Your task to perform on an android device: Open Maps and search for coffee Image 0: 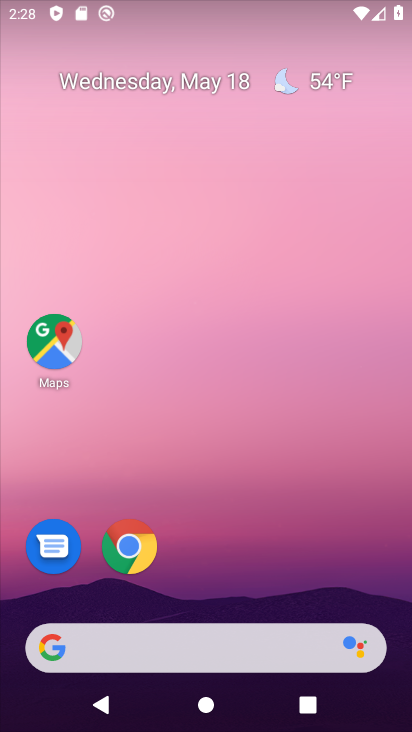
Step 0: press home button
Your task to perform on an android device: Open Maps and search for coffee Image 1: 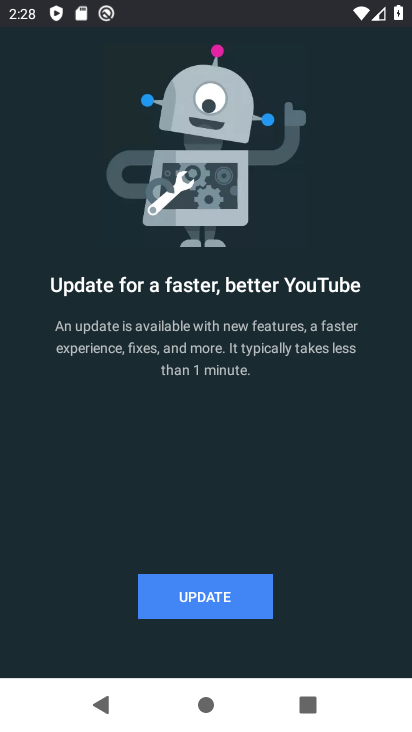
Step 1: press home button
Your task to perform on an android device: Open Maps and search for coffee Image 2: 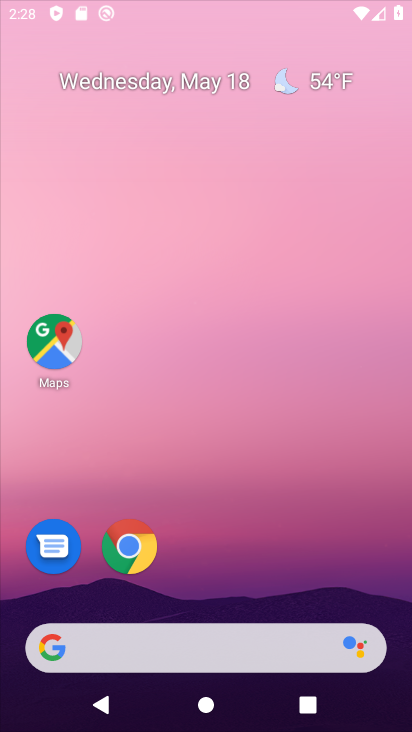
Step 2: press home button
Your task to perform on an android device: Open Maps and search for coffee Image 3: 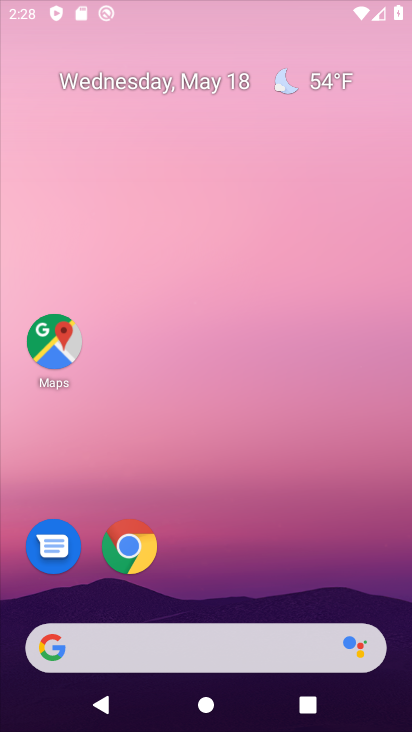
Step 3: press home button
Your task to perform on an android device: Open Maps and search for coffee Image 4: 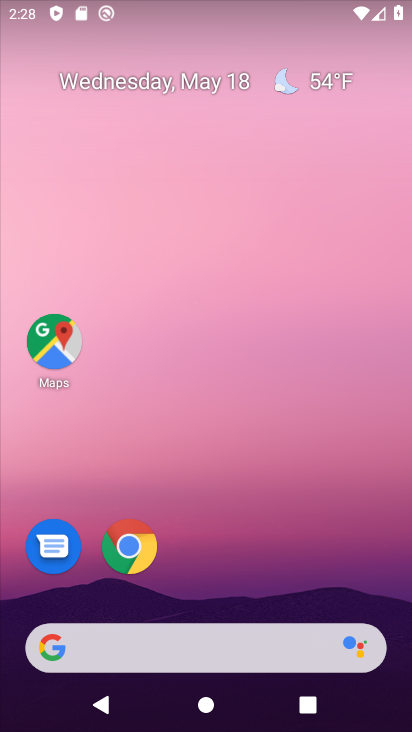
Step 4: click (49, 339)
Your task to perform on an android device: Open Maps and search for coffee Image 5: 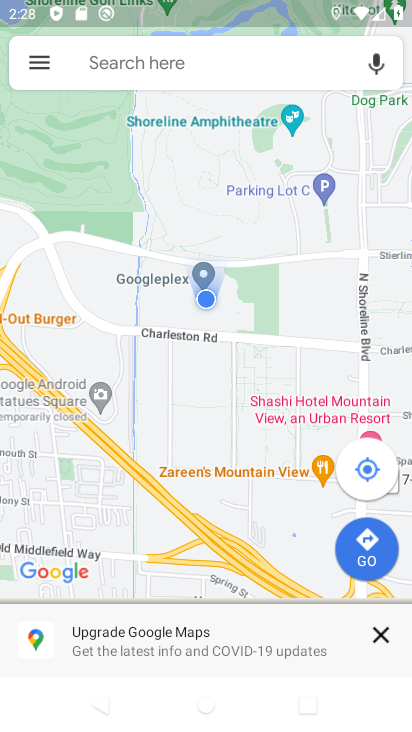
Step 5: click (237, 57)
Your task to perform on an android device: Open Maps and search for coffee Image 6: 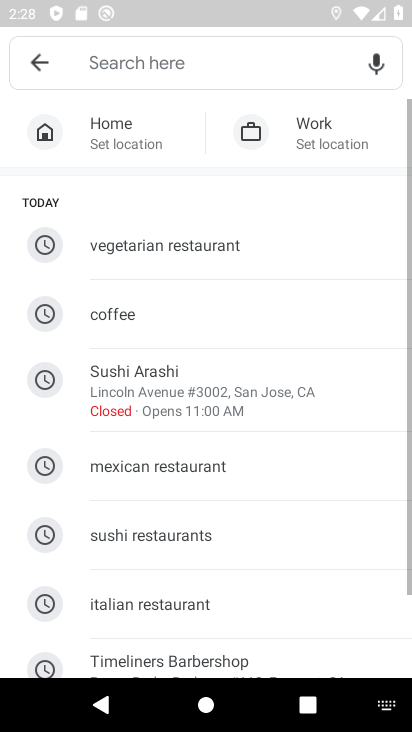
Step 6: type " coffee"
Your task to perform on an android device: Open Maps and search for coffee Image 7: 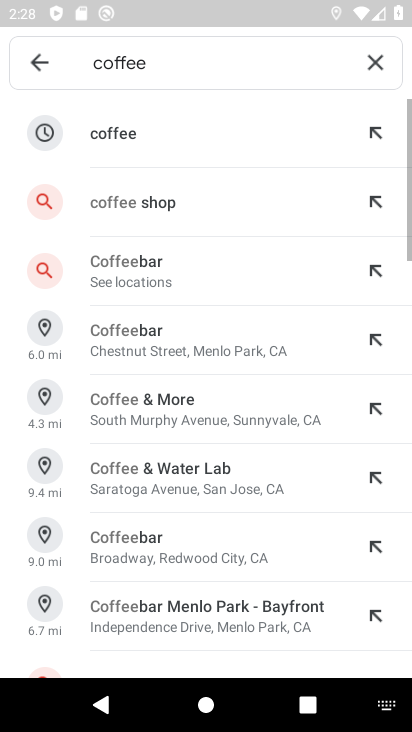
Step 7: click (243, 118)
Your task to perform on an android device: Open Maps and search for coffee Image 8: 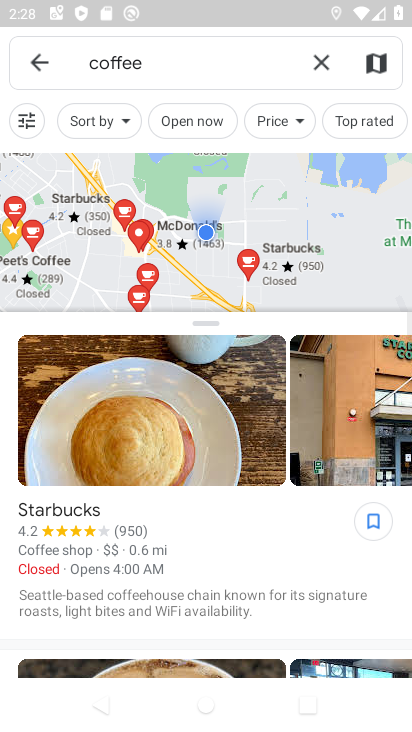
Step 8: task complete